Your task to perform on an android device: open chrome and create a bookmark for the current page Image 0: 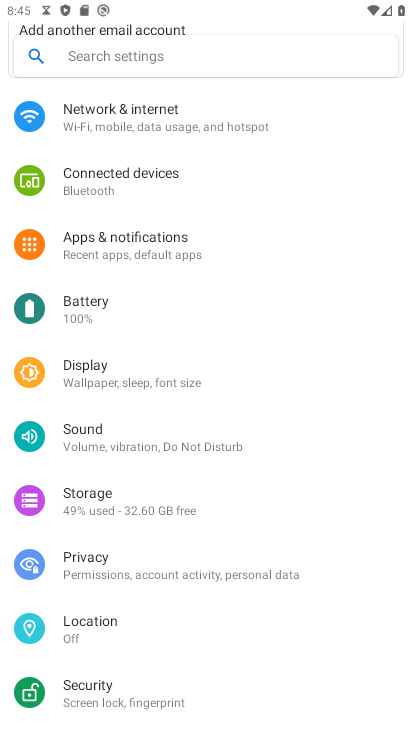
Step 0: press home button
Your task to perform on an android device: open chrome and create a bookmark for the current page Image 1: 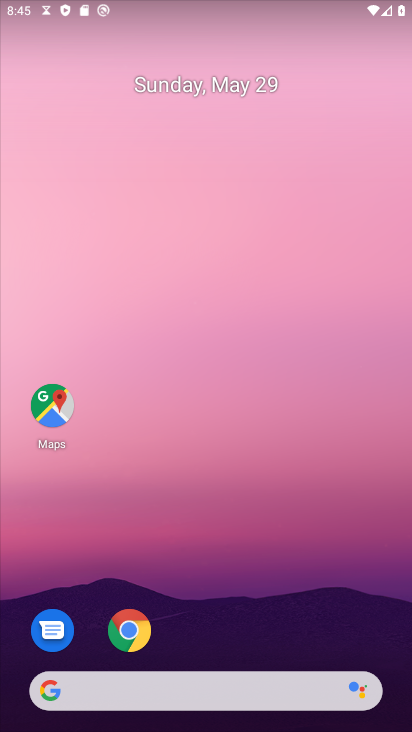
Step 1: click (129, 622)
Your task to perform on an android device: open chrome and create a bookmark for the current page Image 2: 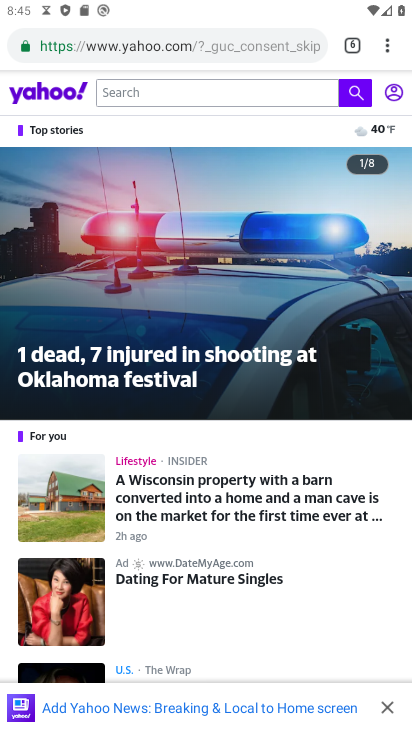
Step 2: click (389, 43)
Your task to perform on an android device: open chrome and create a bookmark for the current page Image 3: 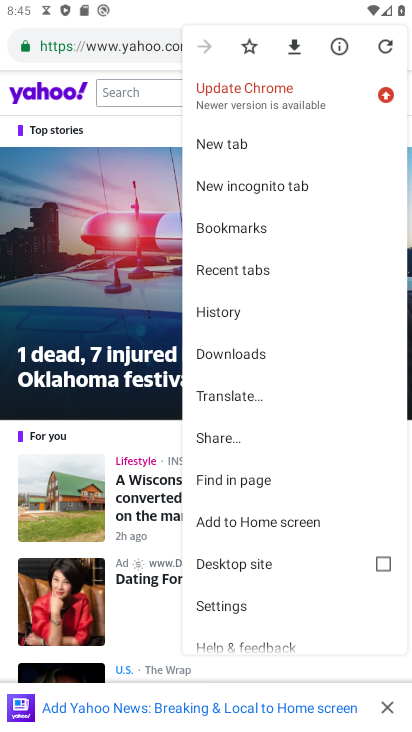
Step 3: click (244, 46)
Your task to perform on an android device: open chrome and create a bookmark for the current page Image 4: 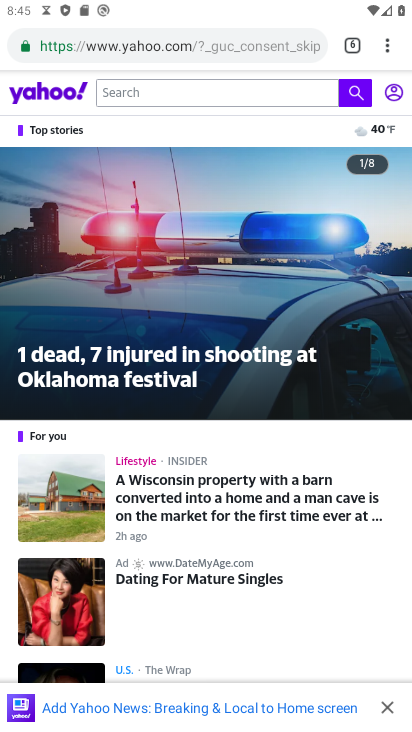
Step 4: task complete